Your task to perform on an android device: set the timer Image 0: 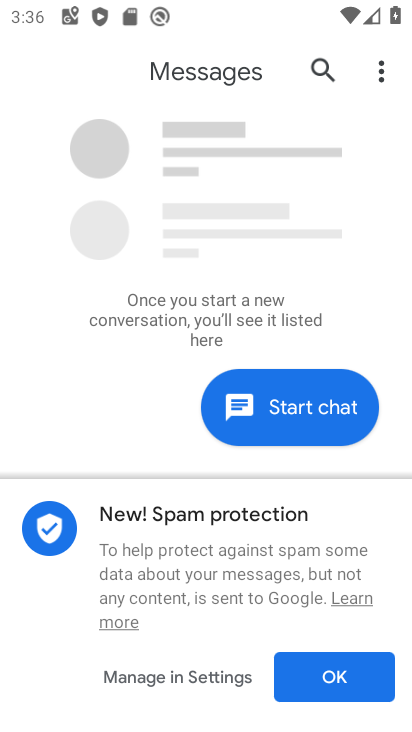
Step 0: press home button
Your task to perform on an android device: set the timer Image 1: 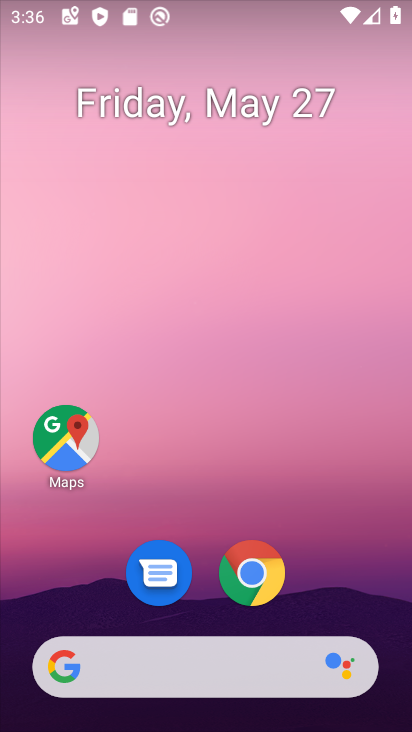
Step 1: drag from (223, 474) to (263, 54)
Your task to perform on an android device: set the timer Image 2: 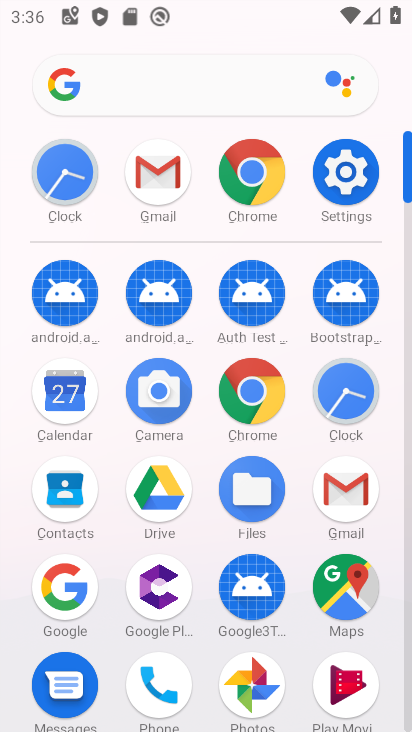
Step 2: click (328, 382)
Your task to perform on an android device: set the timer Image 3: 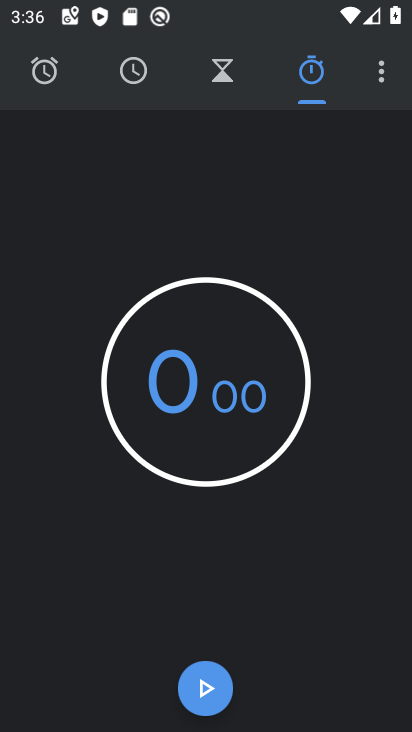
Step 3: click (223, 74)
Your task to perform on an android device: set the timer Image 4: 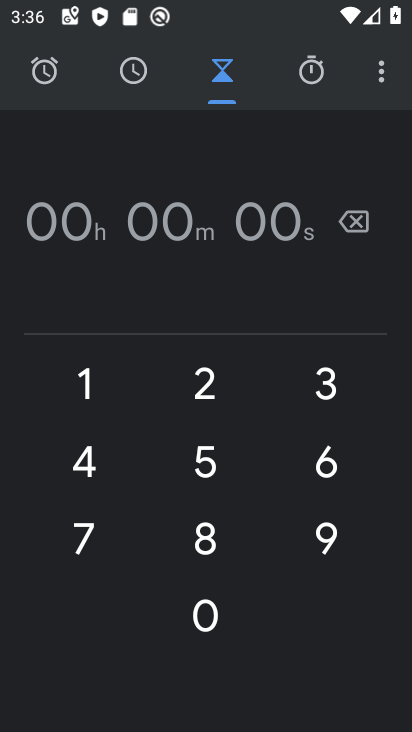
Step 4: task complete